Your task to perform on an android device: View the shopping cart on target.com. Add razer blade to the cart on target.com, then select checkout. Image 0: 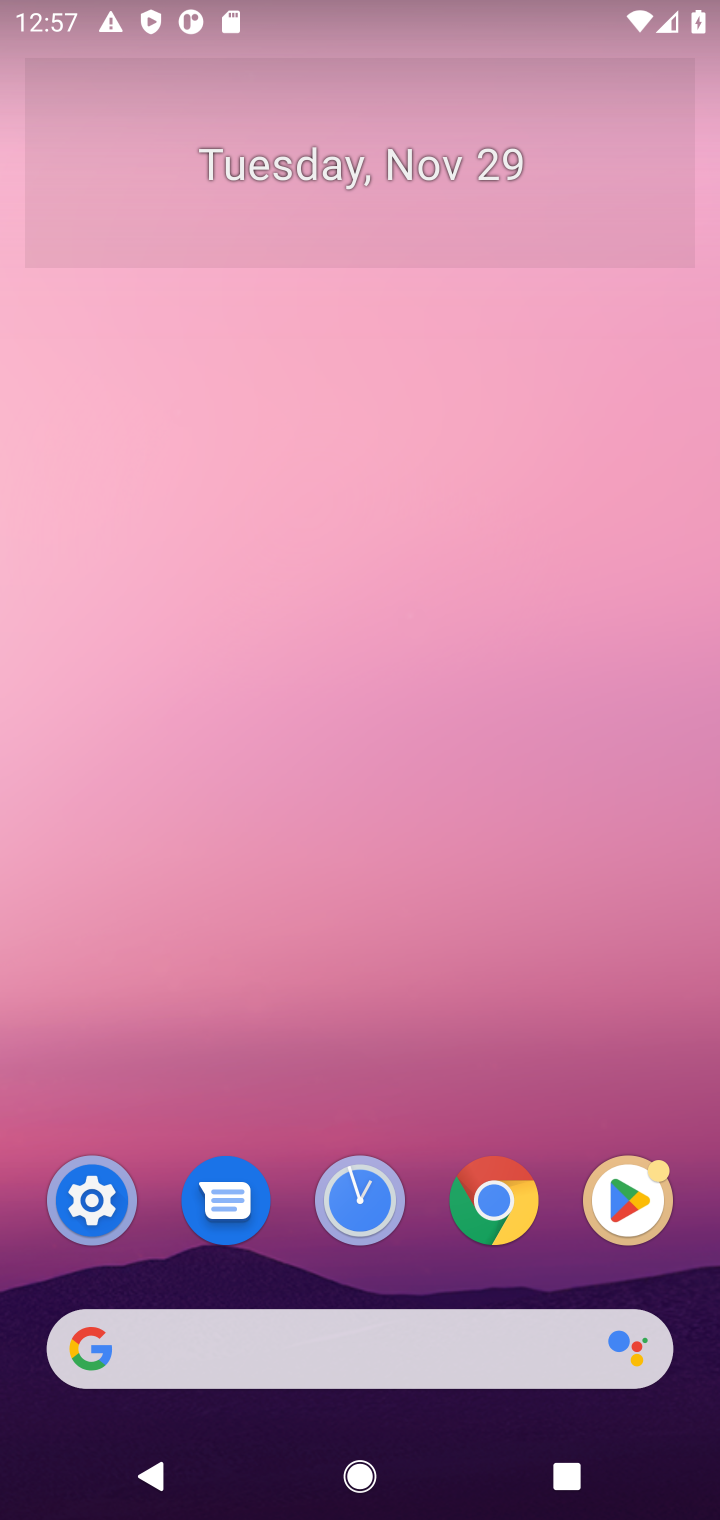
Step 0: click (355, 1341)
Your task to perform on an android device: View the shopping cart on target.com. Add razer blade to the cart on target.com, then select checkout. Image 1: 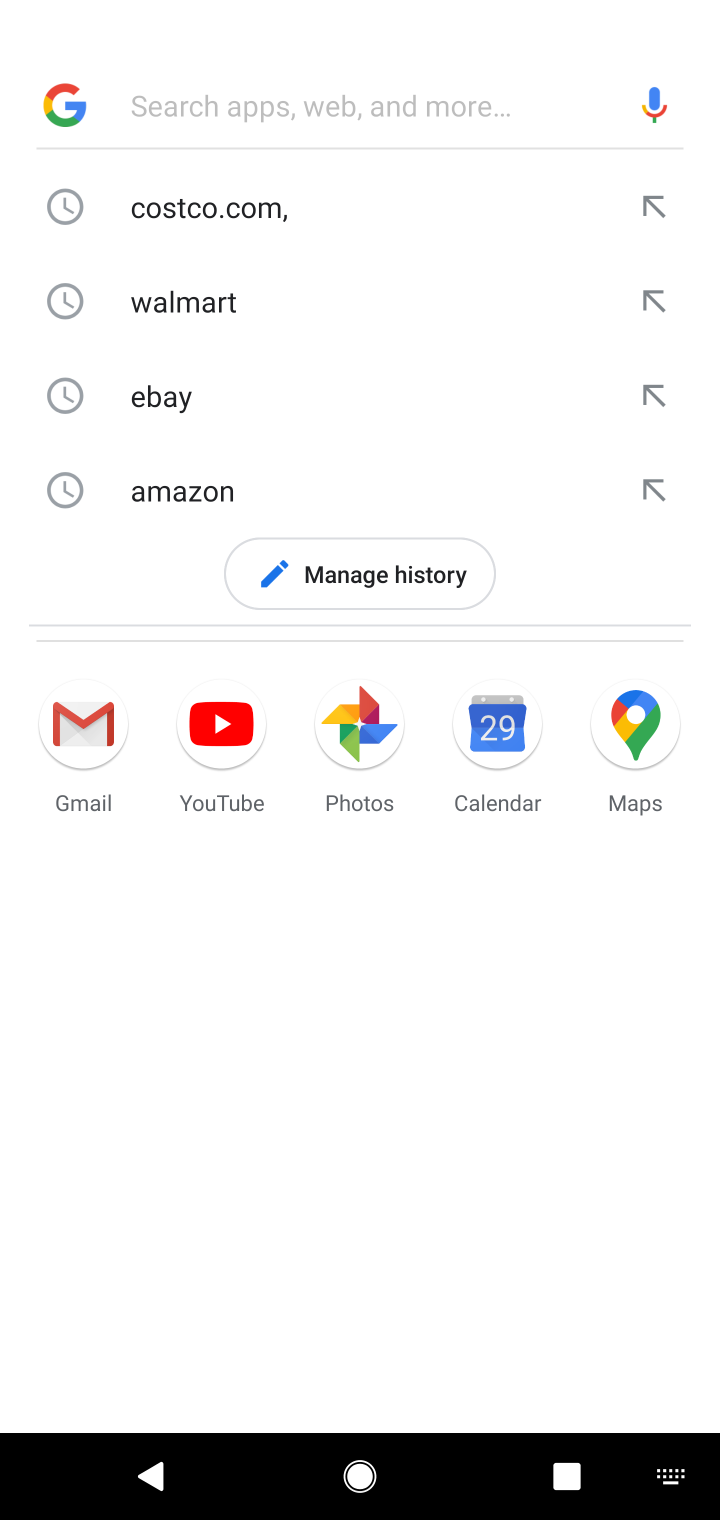
Step 1: task complete